Your task to perform on an android device: Open ESPN.com Image 0: 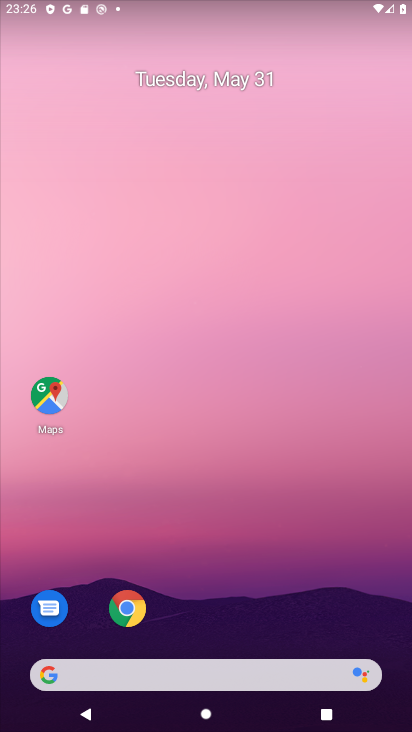
Step 0: click (123, 609)
Your task to perform on an android device: Open ESPN.com Image 1: 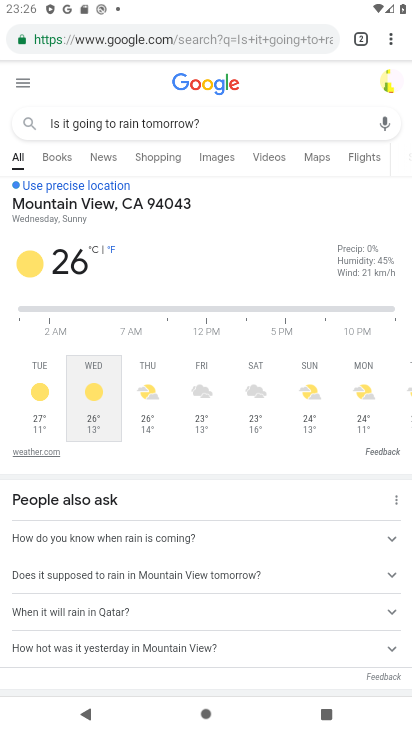
Step 1: drag from (388, 34) to (287, 73)
Your task to perform on an android device: Open ESPN.com Image 2: 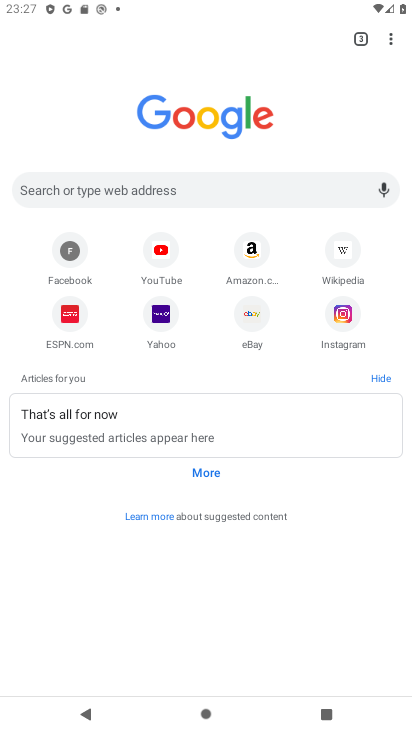
Step 2: click (54, 318)
Your task to perform on an android device: Open ESPN.com Image 3: 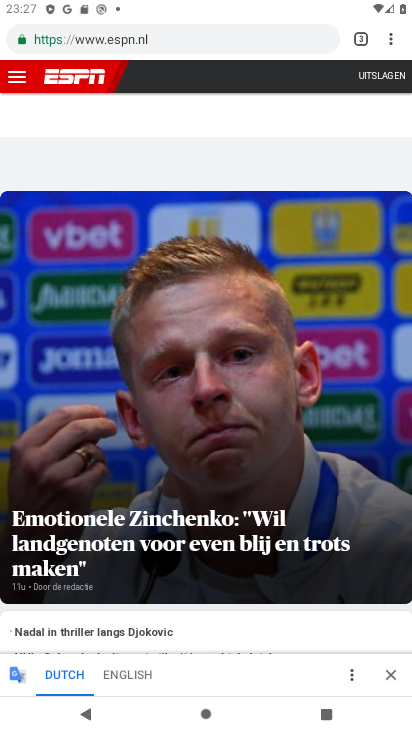
Step 3: task complete